Your task to perform on an android device: Go to display settings Image 0: 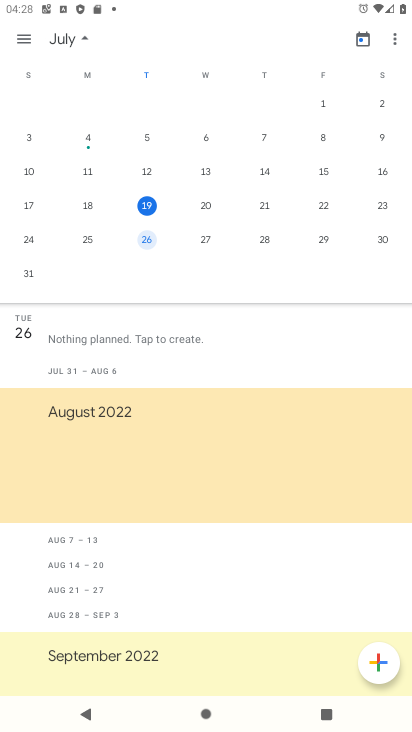
Step 0: press home button
Your task to perform on an android device: Go to display settings Image 1: 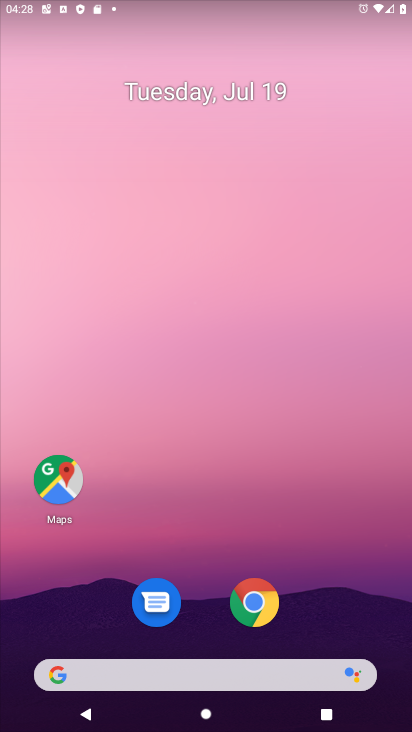
Step 1: drag from (185, 640) to (250, 26)
Your task to perform on an android device: Go to display settings Image 2: 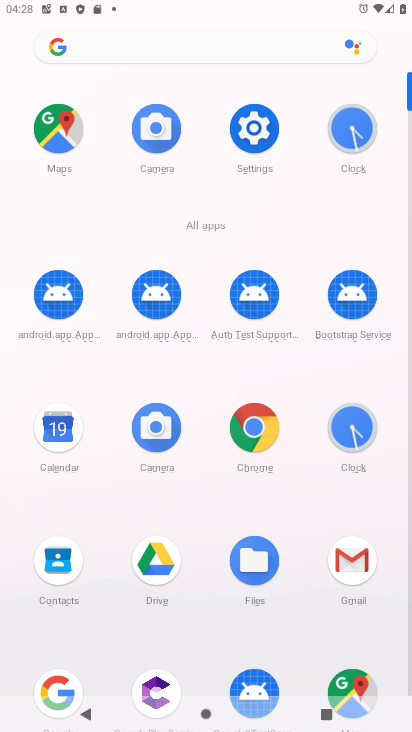
Step 2: click (252, 146)
Your task to perform on an android device: Go to display settings Image 3: 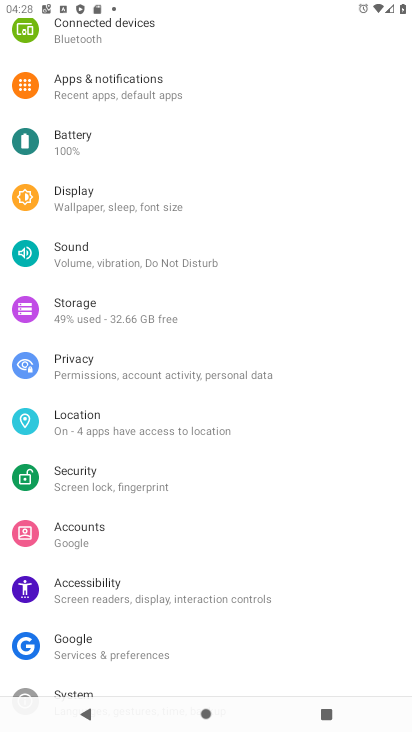
Step 3: click (132, 209)
Your task to perform on an android device: Go to display settings Image 4: 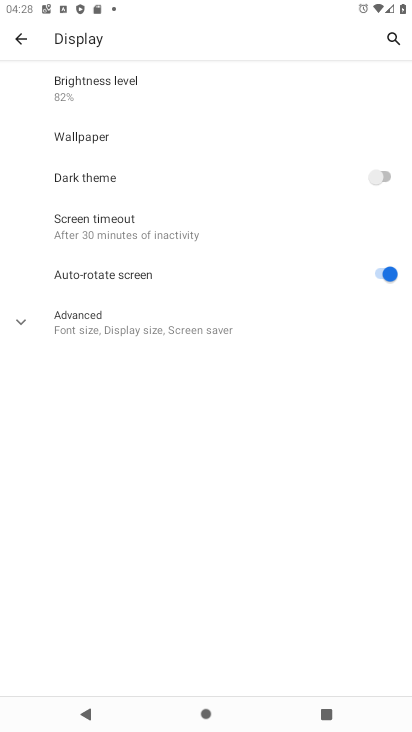
Step 4: task complete